Your task to perform on an android device: Add lenovo thinkpad to the cart on ebay.com, then select checkout. Image 0: 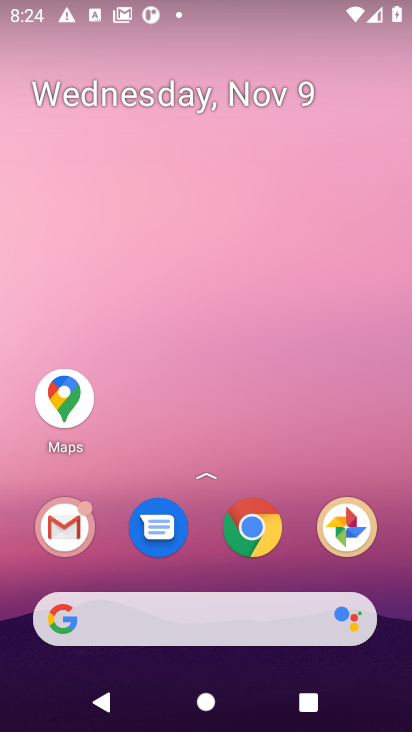
Step 0: click (257, 530)
Your task to perform on an android device: Add lenovo thinkpad to the cart on ebay.com, then select checkout. Image 1: 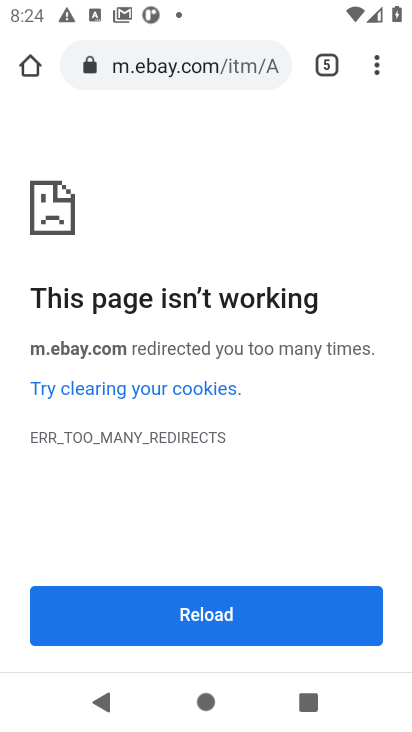
Step 1: click (213, 73)
Your task to perform on an android device: Add lenovo thinkpad to the cart on ebay.com, then select checkout. Image 2: 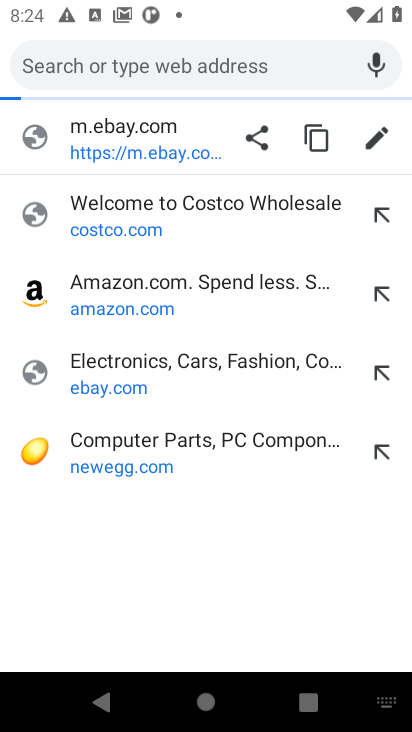
Step 2: click (115, 381)
Your task to perform on an android device: Add lenovo thinkpad to the cart on ebay.com, then select checkout. Image 3: 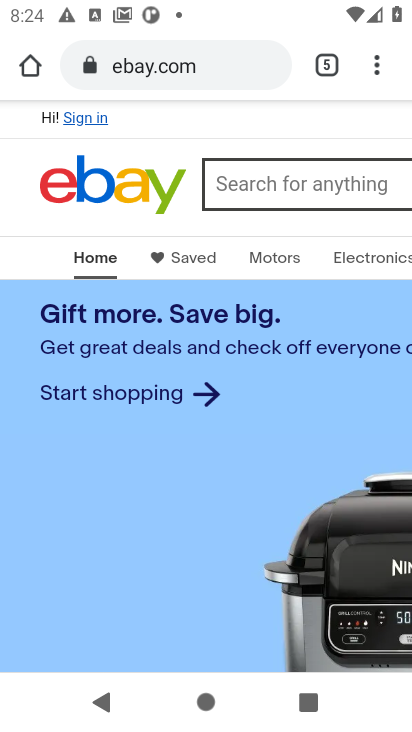
Step 3: click (262, 189)
Your task to perform on an android device: Add lenovo thinkpad to the cart on ebay.com, then select checkout. Image 4: 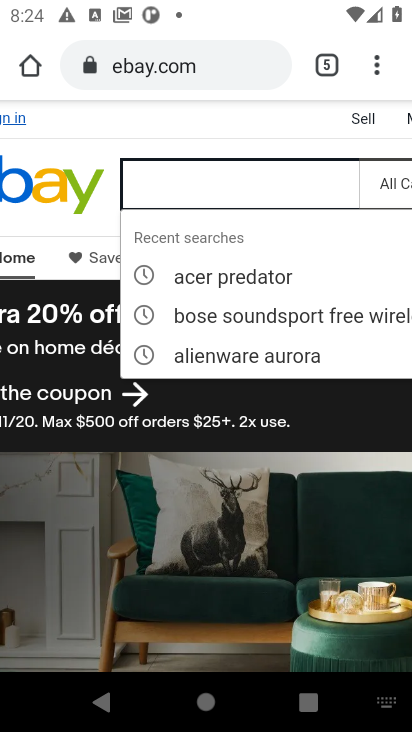
Step 4: type "lenovo thinkpad "
Your task to perform on an android device: Add lenovo thinkpad to the cart on ebay.com, then select checkout. Image 5: 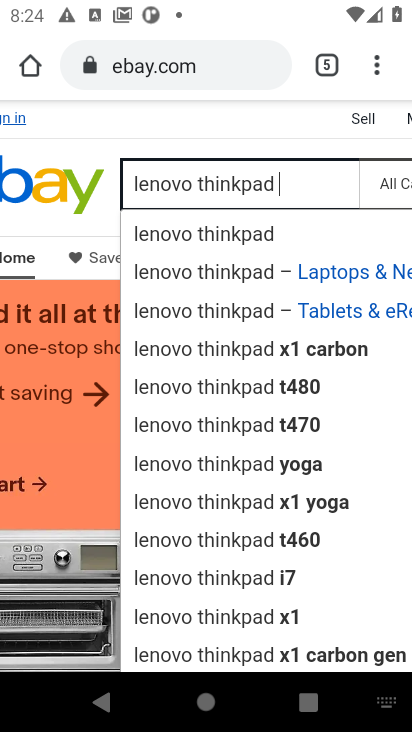
Step 5: click (247, 238)
Your task to perform on an android device: Add lenovo thinkpad to the cart on ebay.com, then select checkout. Image 6: 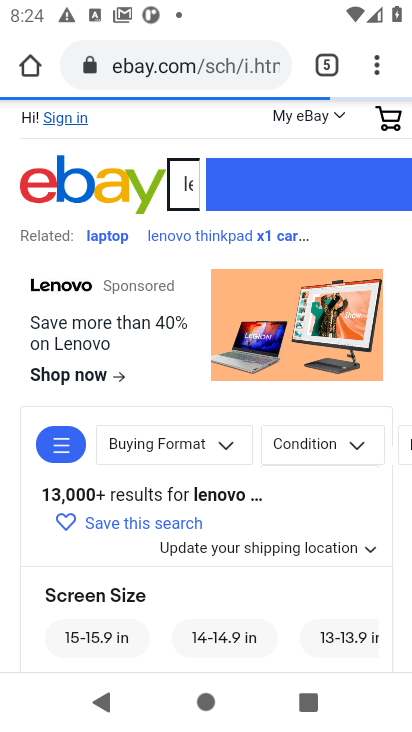
Step 6: drag from (305, 503) to (278, 323)
Your task to perform on an android device: Add lenovo thinkpad to the cart on ebay.com, then select checkout. Image 7: 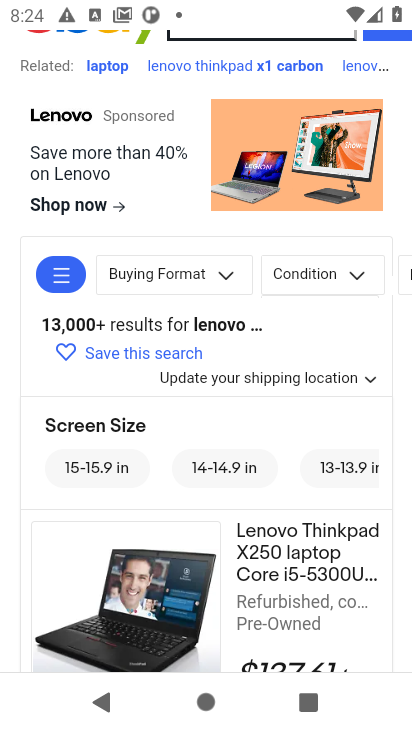
Step 7: drag from (209, 591) to (207, 397)
Your task to perform on an android device: Add lenovo thinkpad to the cart on ebay.com, then select checkout. Image 8: 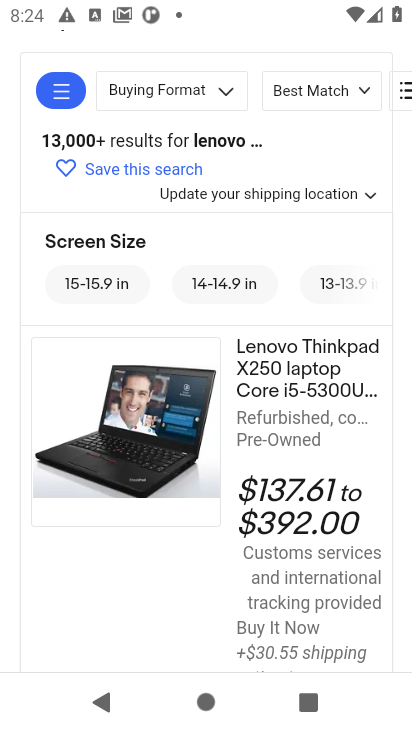
Step 8: click (200, 476)
Your task to perform on an android device: Add lenovo thinkpad to the cart on ebay.com, then select checkout. Image 9: 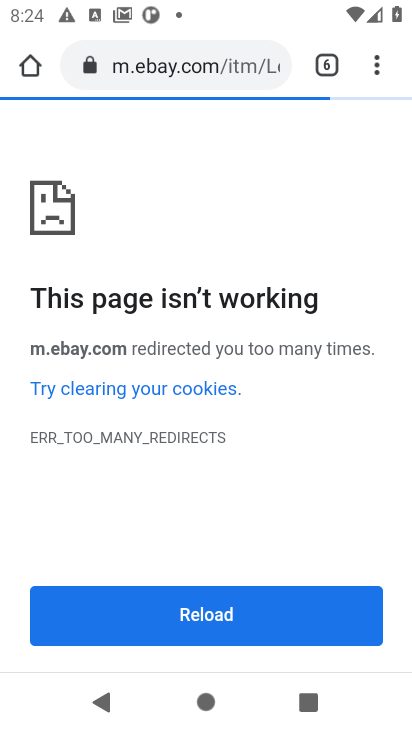
Step 9: task complete